Your task to perform on an android device: turn off smart reply in the gmail app Image 0: 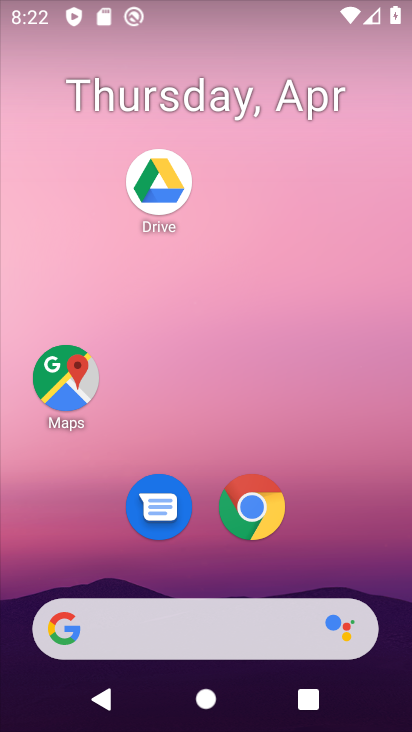
Step 0: drag from (355, 536) to (350, 125)
Your task to perform on an android device: turn off smart reply in the gmail app Image 1: 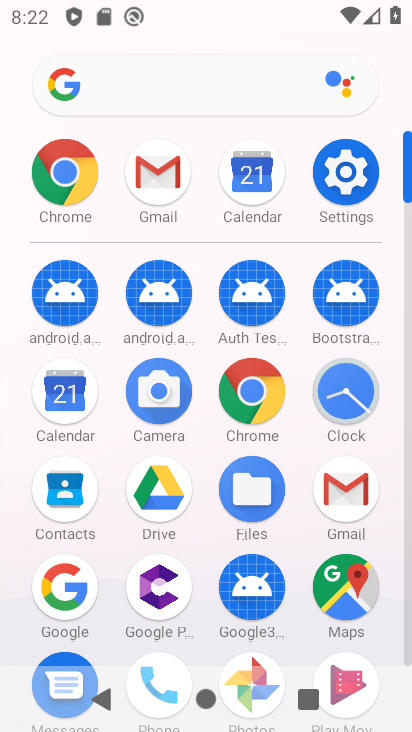
Step 1: click (357, 497)
Your task to perform on an android device: turn off smart reply in the gmail app Image 2: 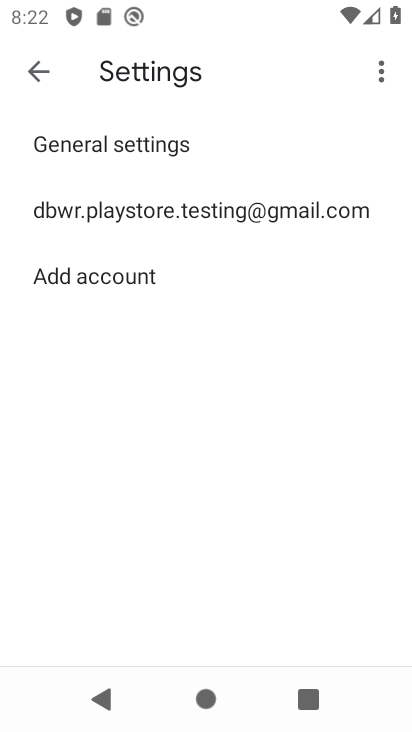
Step 2: click (270, 207)
Your task to perform on an android device: turn off smart reply in the gmail app Image 3: 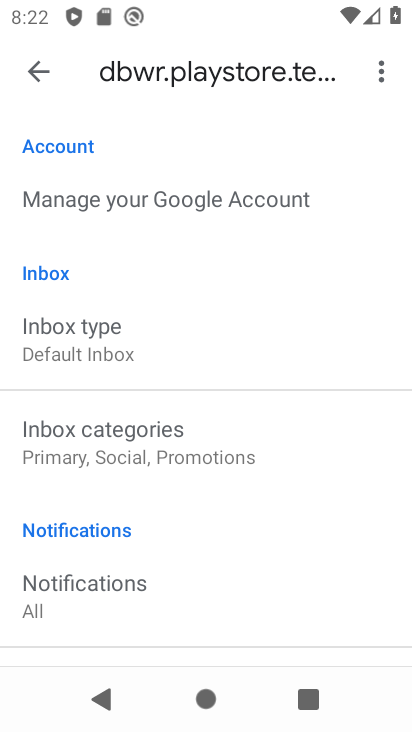
Step 3: drag from (330, 553) to (332, 367)
Your task to perform on an android device: turn off smart reply in the gmail app Image 4: 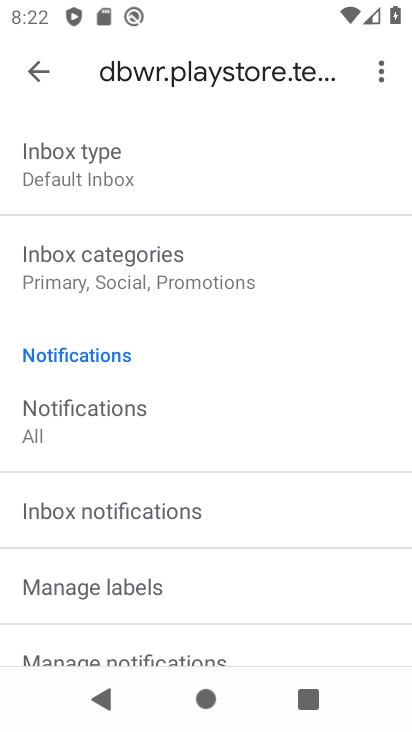
Step 4: drag from (342, 587) to (336, 398)
Your task to perform on an android device: turn off smart reply in the gmail app Image 5: 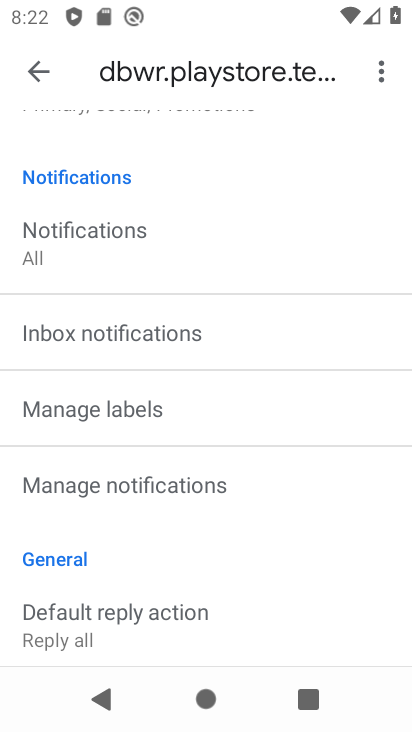
Step 5: drag from (332, 603) to (327, 418)
Your task to perform on an android device: turn off smart reply in the gmail app Image 6: 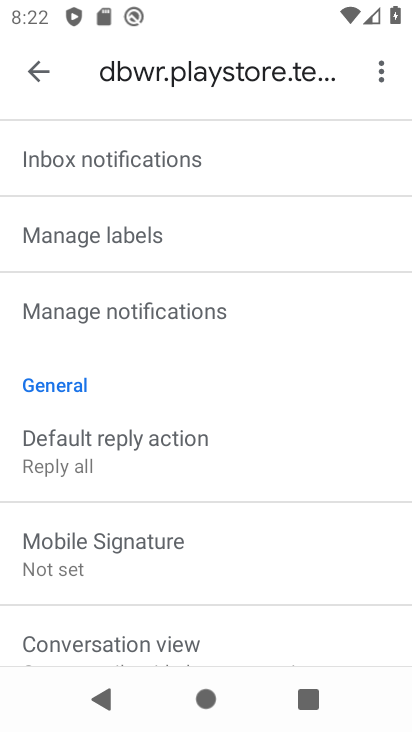
Step 6: drag from (317, 599) to (327, 414)
Your task to perform on an android device: turn off smart reply in the gmail app Image 7: 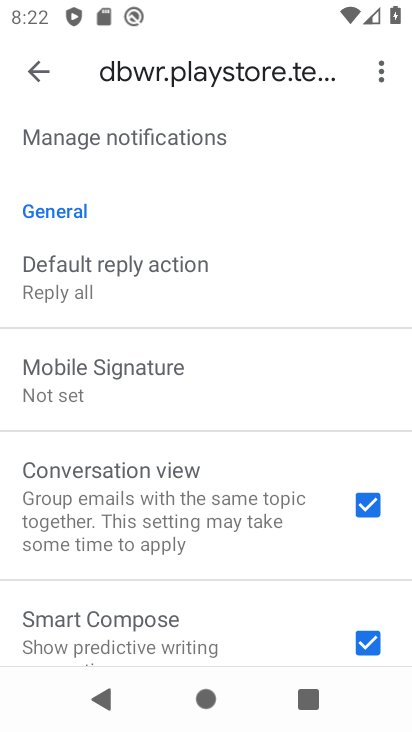
Step 7: drag from (283, 603) to (318, 348)
Your task to perform on an android device: turn off smart reply in the gmail app Image 8: 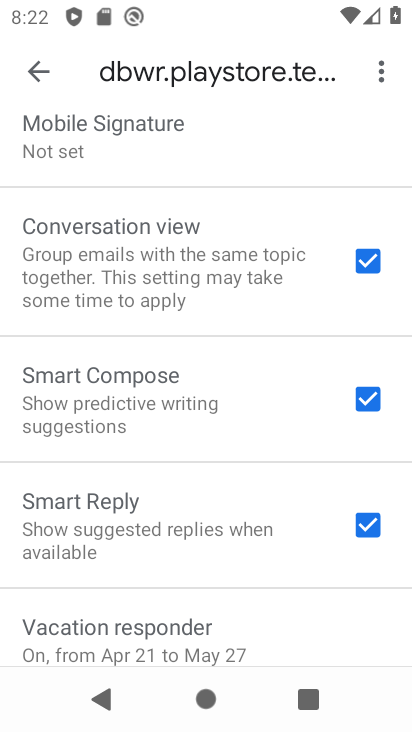
Step 8: drag from (280, 592) to (281, 452)
Your task to perform on an android device: turn off smart reply in the gmail app Image 9: 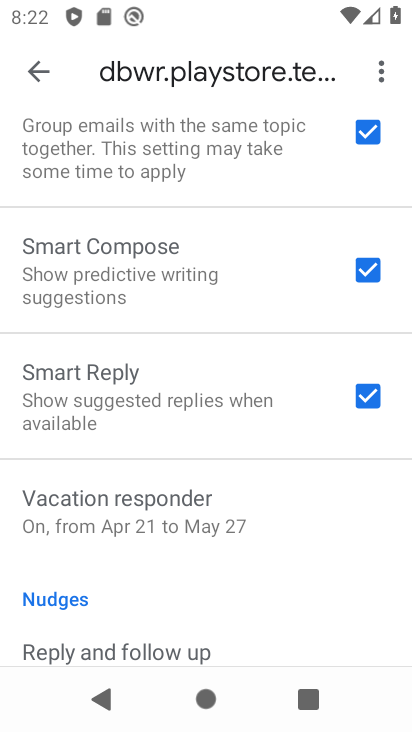
Step 9: drag from (289, 602) to (307, 340)
Your task to perform on an android device: turn off smart reply in the gmail app Image 10: 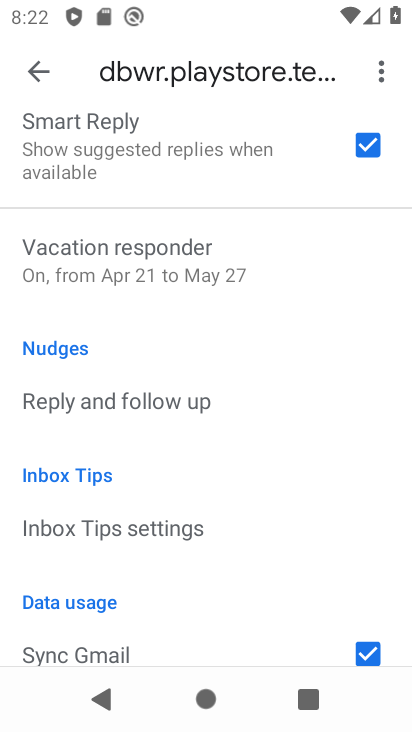
Step 10: drag from (305, 257) to (305, 426)
Your task to perform on an android device: turn off smart reply in the gmail app Image 11: 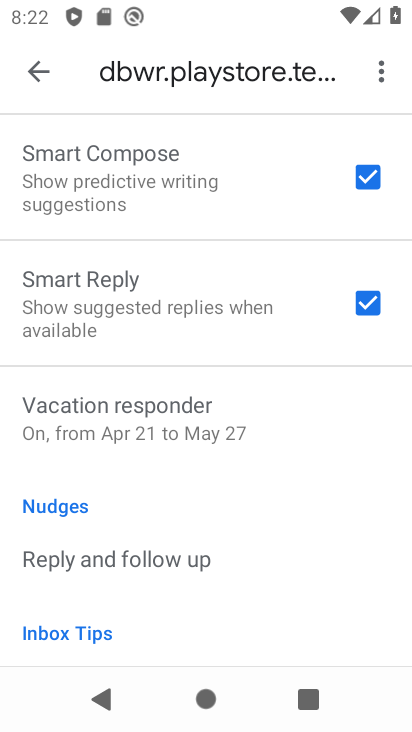
Step 11: drag from (283, 199) to (286, 308)
Your task to perform on an android device: turn off smart reply in the gmail app Image 12: 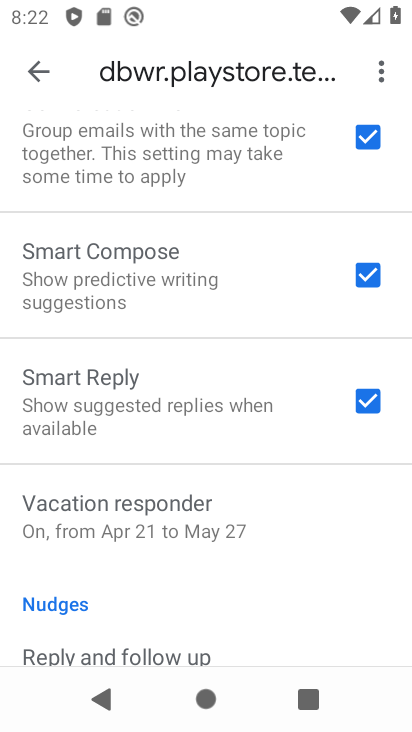
Step 12: click (357, 406)
Your task to perform on an android device: turn off smart reply in the gmail app Image 13: 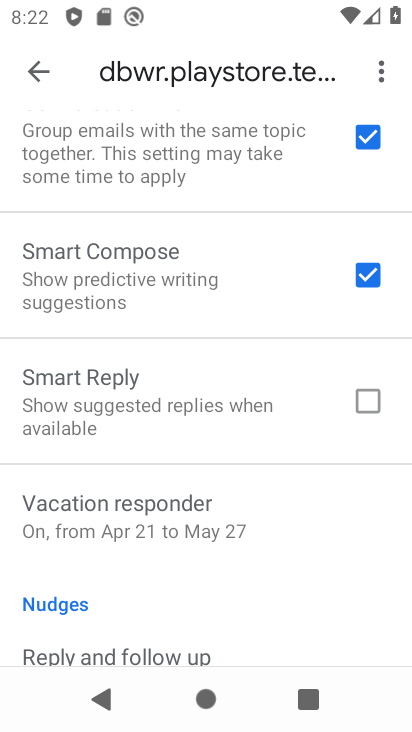
Step 13: task complete